Your task to perform on an android device: toggle translation in the chrome app Image 0: 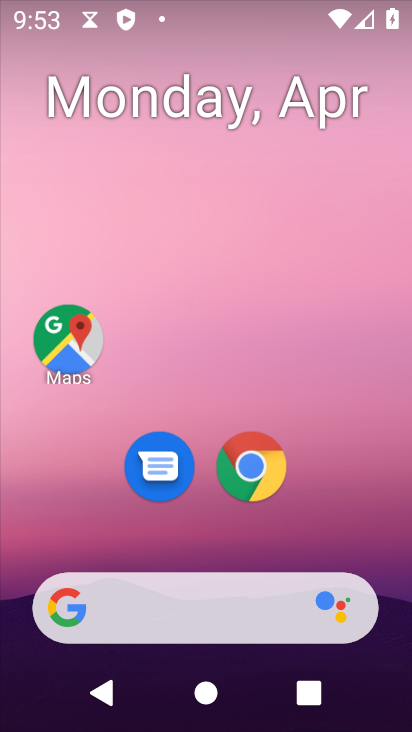
Step 0: click (253, 470)
Your task to perform on an android device: toggle translation in the chrome app Image 1: 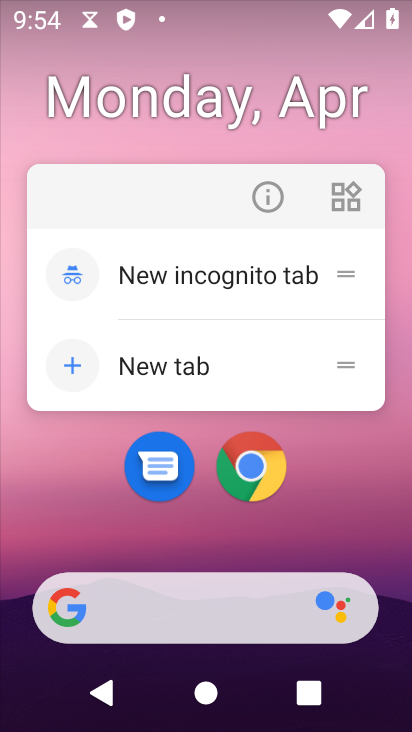
Step 1: click (253, 470)
Your task to perform on an android device: toggle translation in the chrome app Image 2: 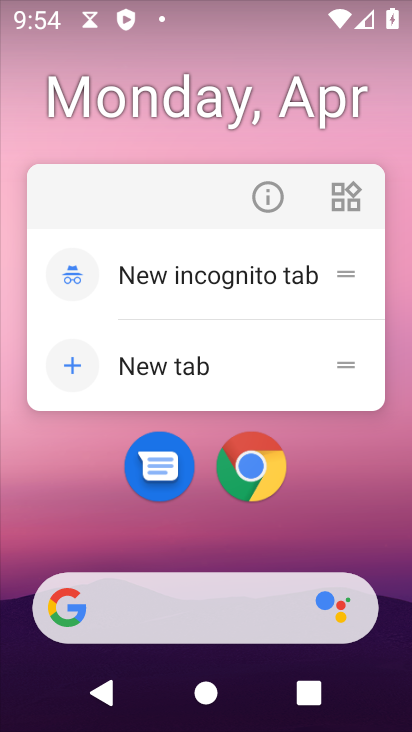
Step 2: click (253, 470)
Your task to perform on an android device: toggle translation in the chrome app Image 3: 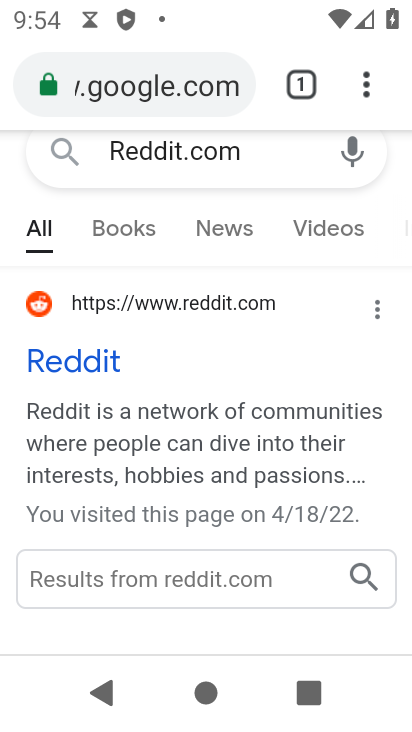
Step 3: click (369, 82)
Your task to perform on an android device: toggle translation in the chrome app Image 4: 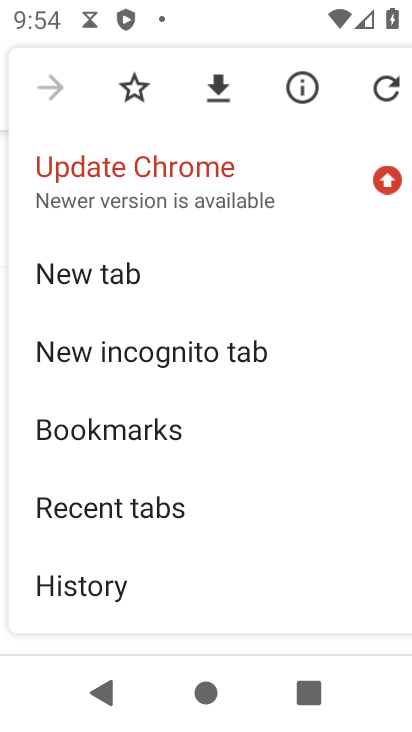
Step 4: drag from (207, 556) to (206, 417)
Your task to perform on an android device: toggle translation in the chrome app Image 5: 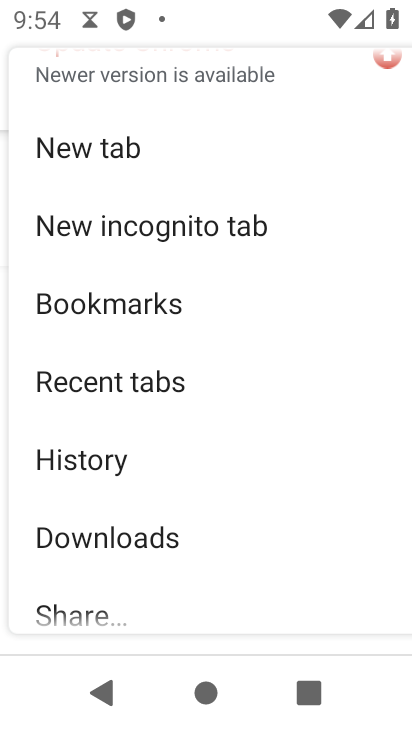
Step 5: drag from (208, 498) to (201, 416)
Your task to perform on an android device: toggle translation in the chrome app Image 6: 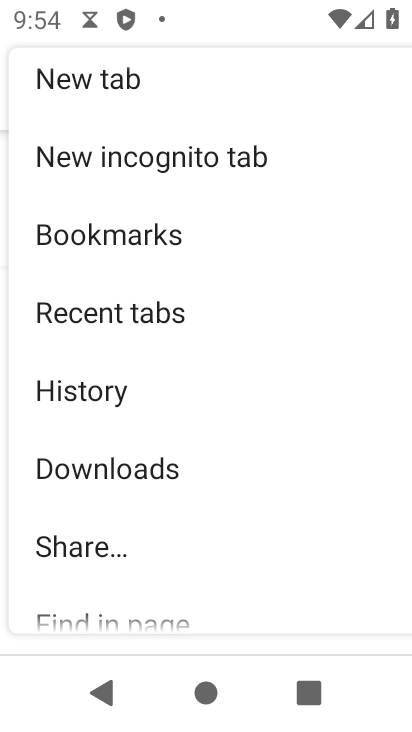
Step 6: drag from (194, 472) to (209, 367)
Your task to perform on an android device: toggle translation in the chrome app Image 7: 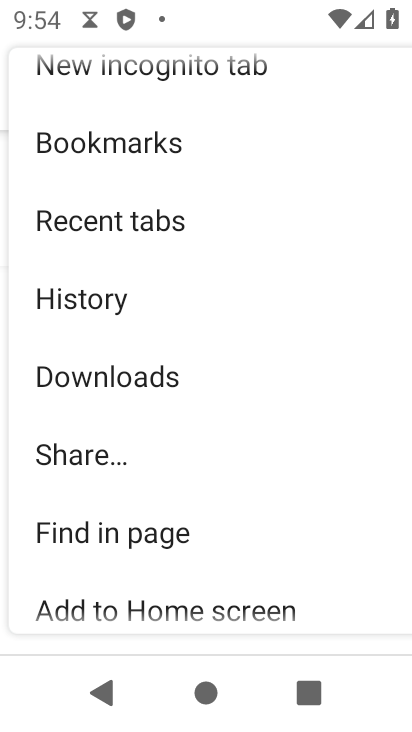
Step 7: drag from (191, 464) to (179, 330)
Your task to perform on an android device: toggle translation in the chrome app Image 8: 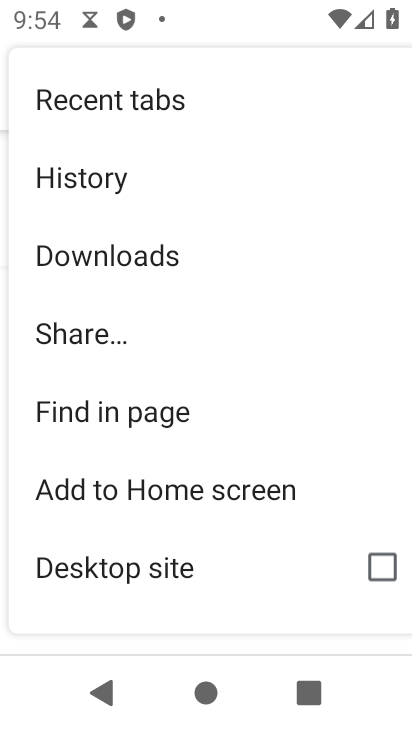
Step 8: drag from (188, 415) to (207, 327)
Your task to perform on an android device: toggle translation in the chrome app Image 9: 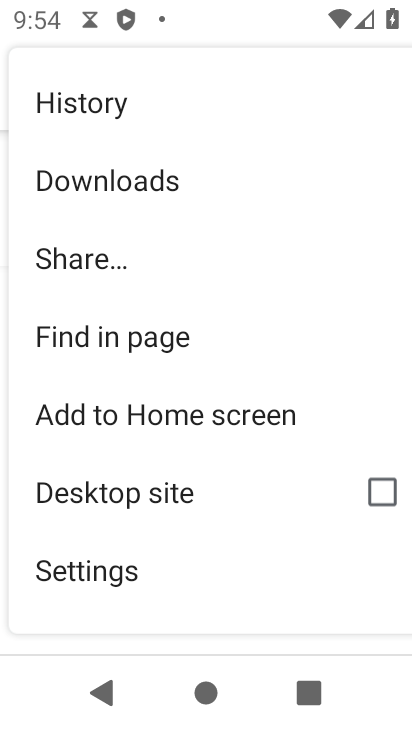
Step 9: drag from (198, 500) to (228, 359)
Your task to perform on an android device: toggle translation in the chrome app Image 10: 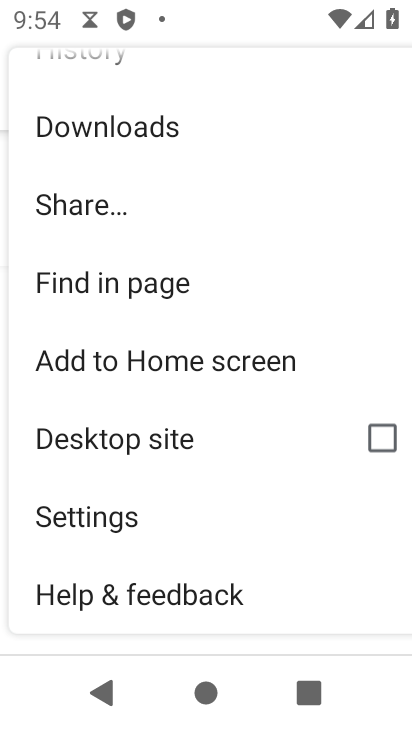
Step 10: click (101, 517)
Your task to perform on an android device: toggle translation in the chrome app Image 11: 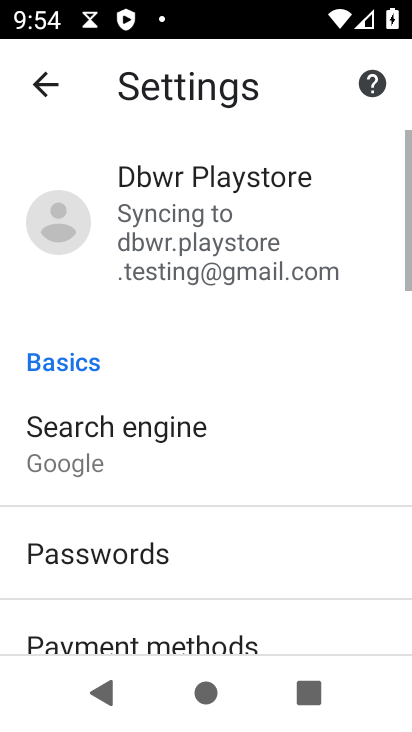
Step 11: drag from (160, 515) to (214, 414)
Your task to perform on an android device: toggle translation in the chrome app Image 12: 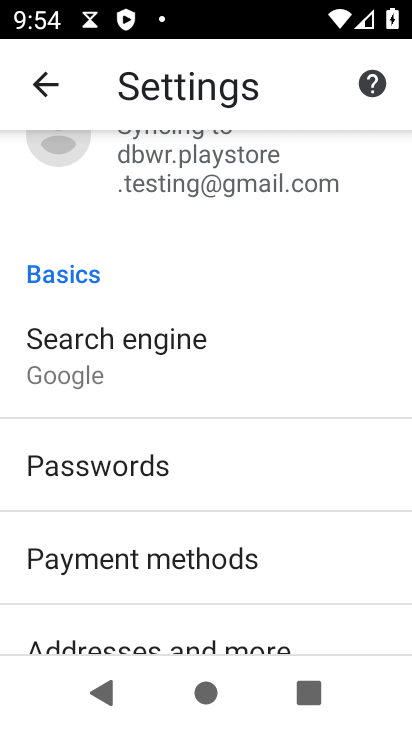
Step 12: drag from (205, 493) to (220, 410)
Your task to perform on an android device: toggle translation in the chrome app Image 13: 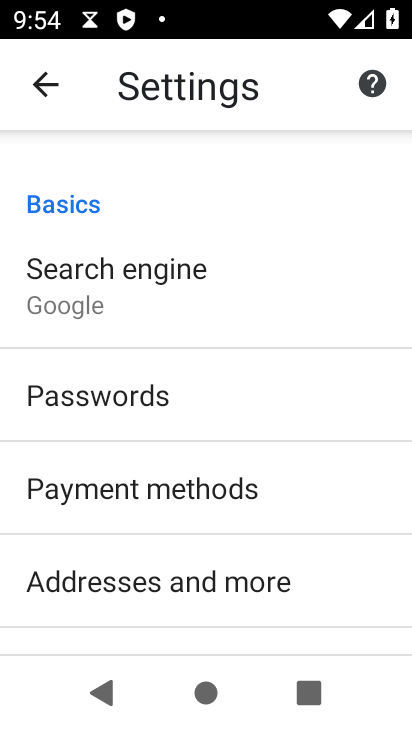
Step 13: drag from (223, 521) to (236, 411)
Your task to perform on an android device: toggle translation in the chrome app Image 14: 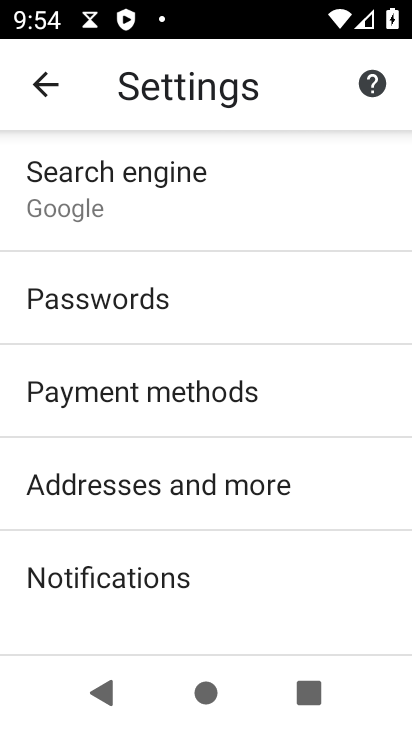
Step 14: drag from (205, 529) to (222, 406)
Your task to perform on an android device: toggle translation in the chrome app Image 15: 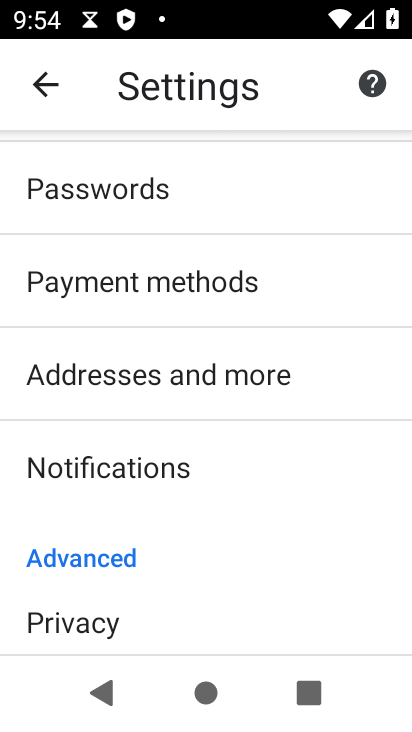
Step 15: drag from (184, 510) to (225, 418)
Your task to perform on an android device: toggle translation in the chrome app Image 16: 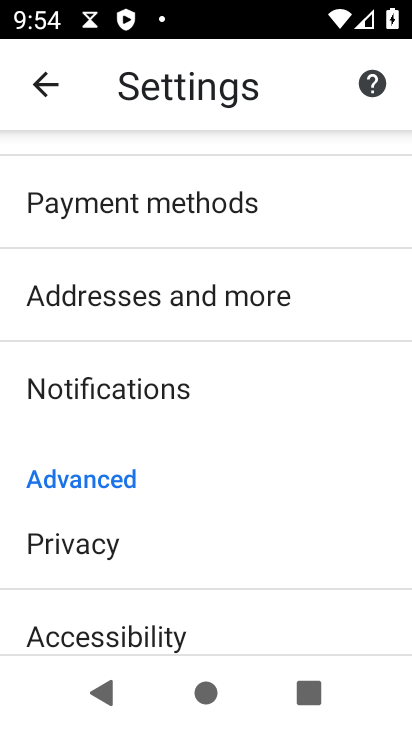
Step 16: drag from (184, 547) to (224, 455)
Your task to perform on an android device: toggle translation in the chrome app Image 17: 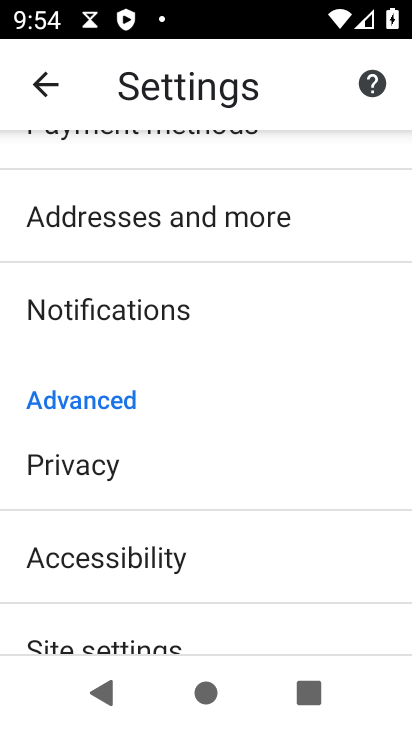
Step 17: drag from (230, 553) to (250, 454)
Your task to perform on an android device: toggle translation in the chrome app Image 18: 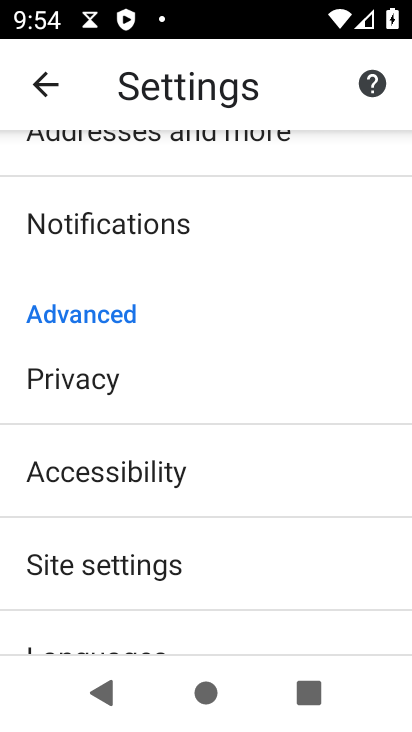
Step 18: drag from (233, 569) to (259, 435)
Your task to perform on an android device: toggle translation in the chrome app Image 19: 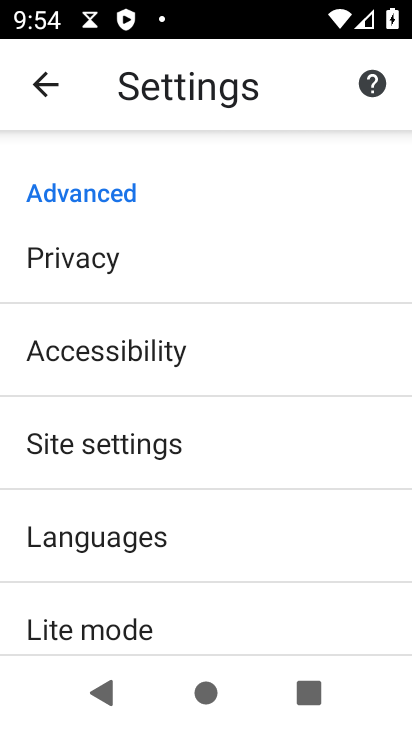
Step 19: click (148, 541)
Your task to perform on an android device: toggle translation in the chrome app Image 20: 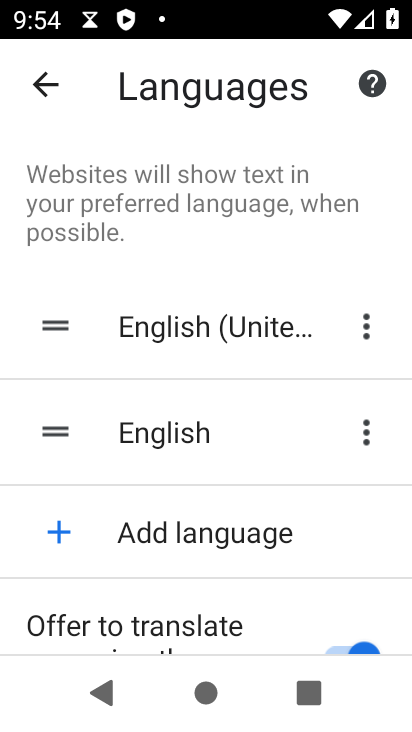
Step 20: drag from (214, 568) to (230, 426)
Your task to perform on an android device: toggle translation in the chrome app Image 21: 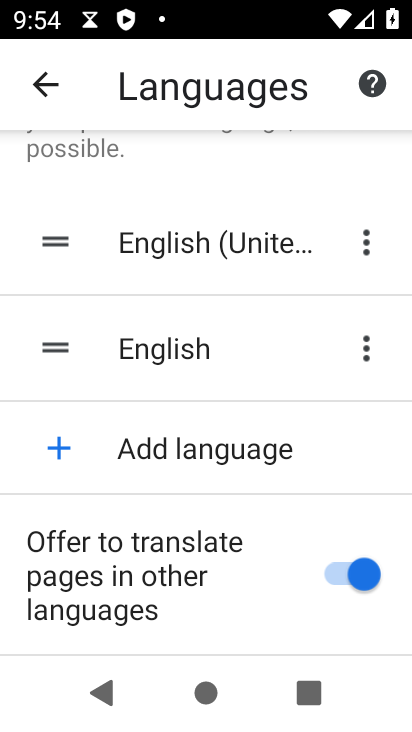
Step 21: click (368, 572)
Your task to perform on an android device: toggle translation in the chrome app Image 22: 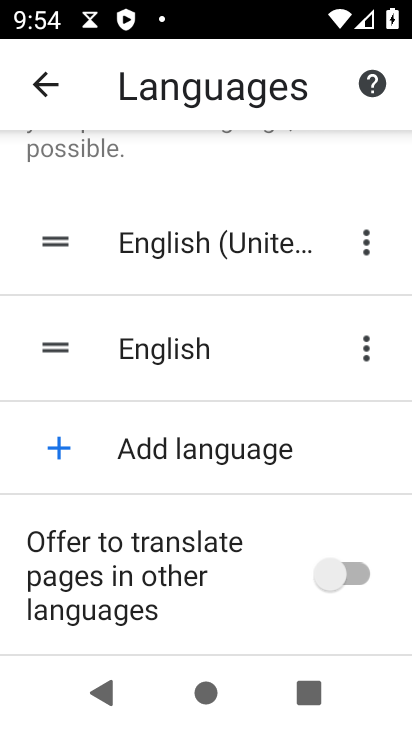
Step 22: task complete